Your task to perform on an android device: remove spam from my inbox in the gmail app Image 0: 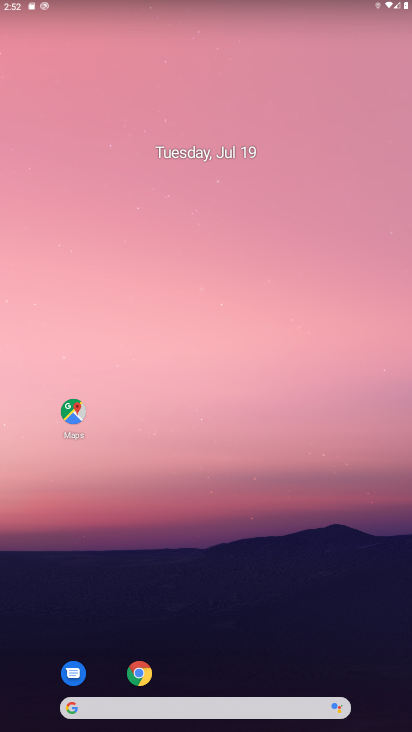
Step 0: drag from (199, 668) to (242, 78)
Your task to perform on an android device: remove spam from my inbox in the gmail app Image 1: 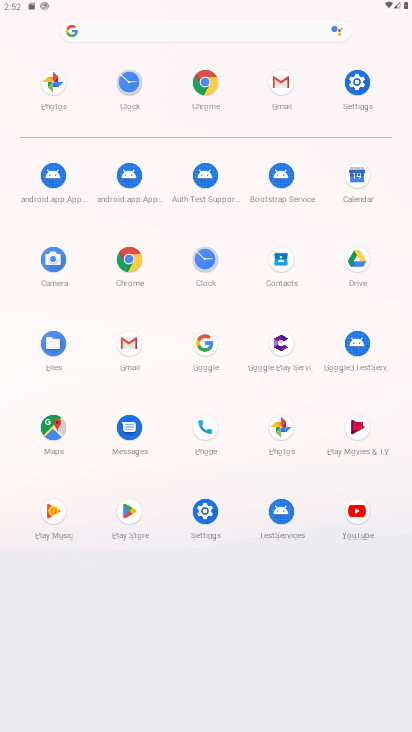
Step 1: click (130, 360)
Your task to perform on an android device: remove spam from my inbox in the gmail app Image 2: 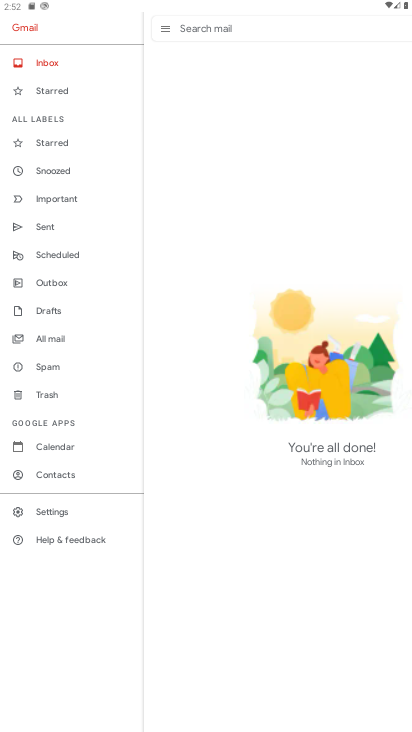
Step 2: click (61, 367)
Your task to perform on an android device: remove spam from my inbox in the gmail app Image 3: 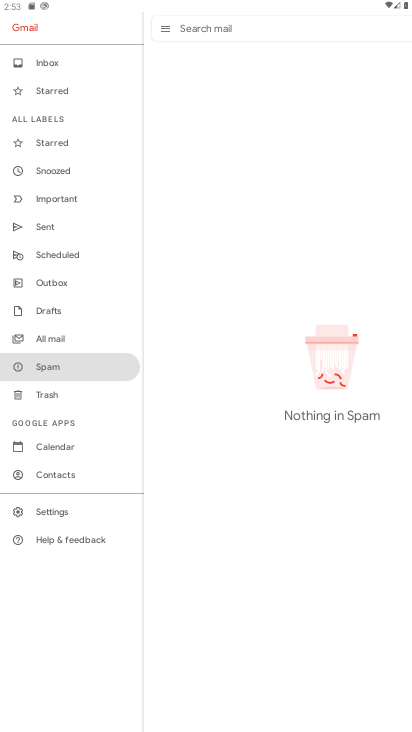
Step 3: task complete